Your task to perform on an android device: Open internet settings Image 0: 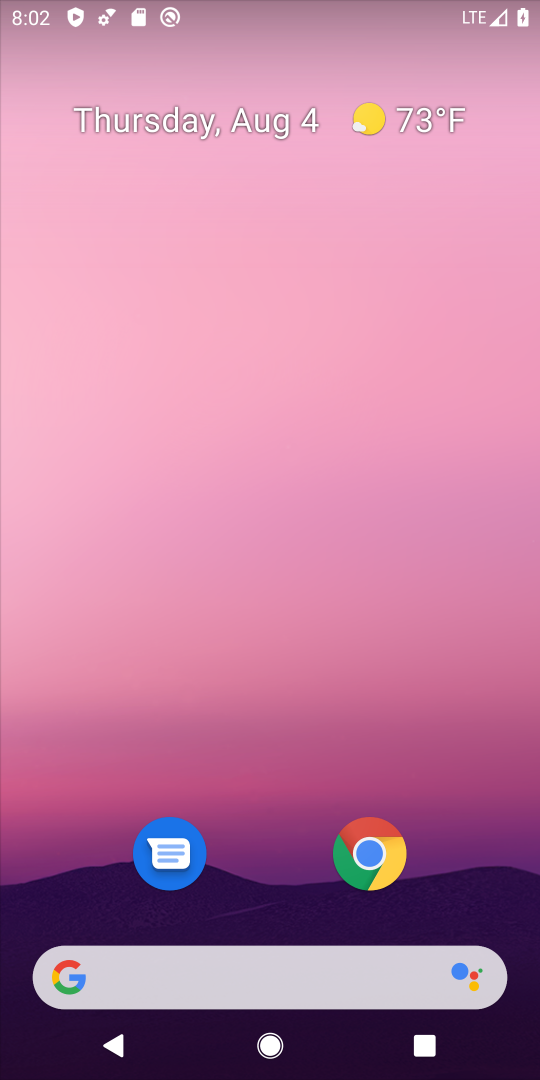
Step 0: drag from (343, 800) to (412, 262)
Your task to perform on an android device: Open internet settings Image 1: 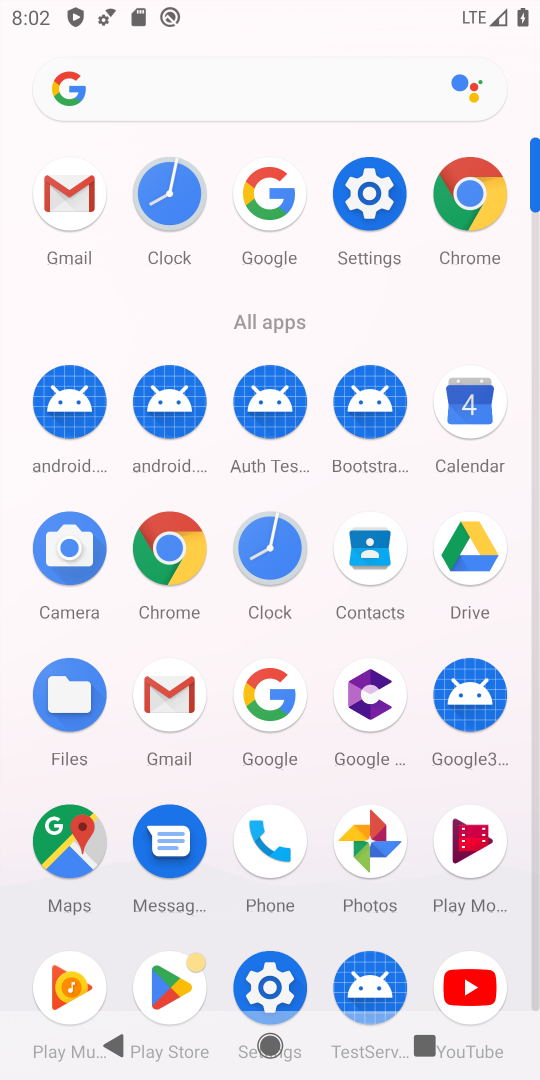
Step 1: click (371, 205)
Your task to perform on an android device: Open internet settings Image 2: 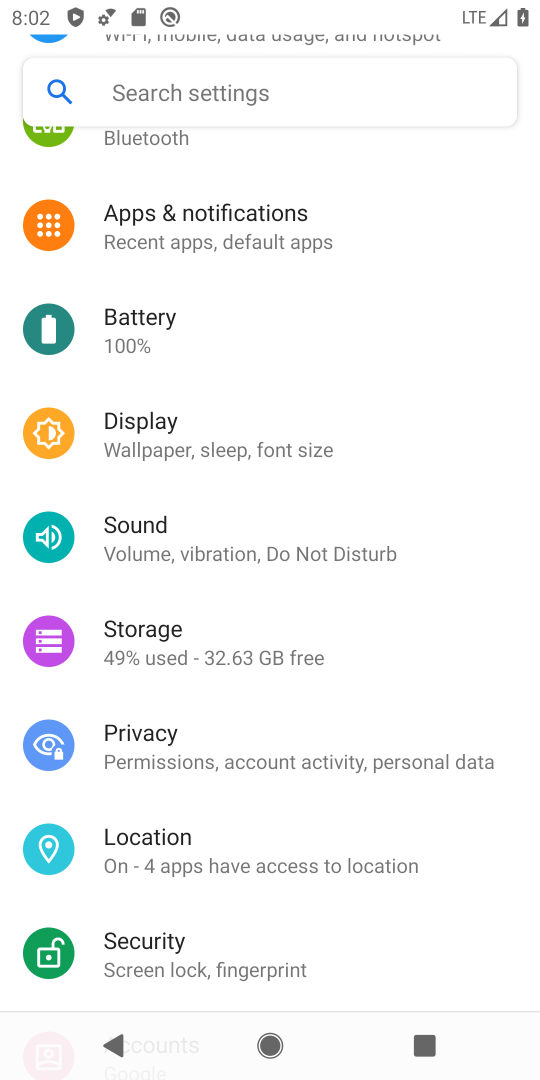
Step 2: drag from (240, 203) to (387, 588)
Your task to perform on an android device: Open internet settings Image 3: 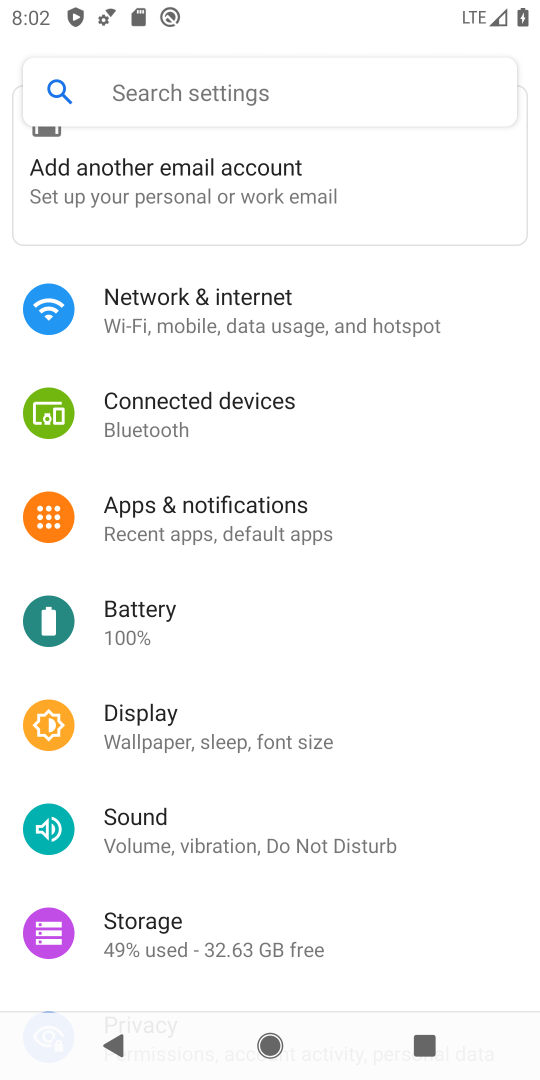
Step 3: click (232, 278)
Your task to perform on an android device: Open internet settings Image 4: 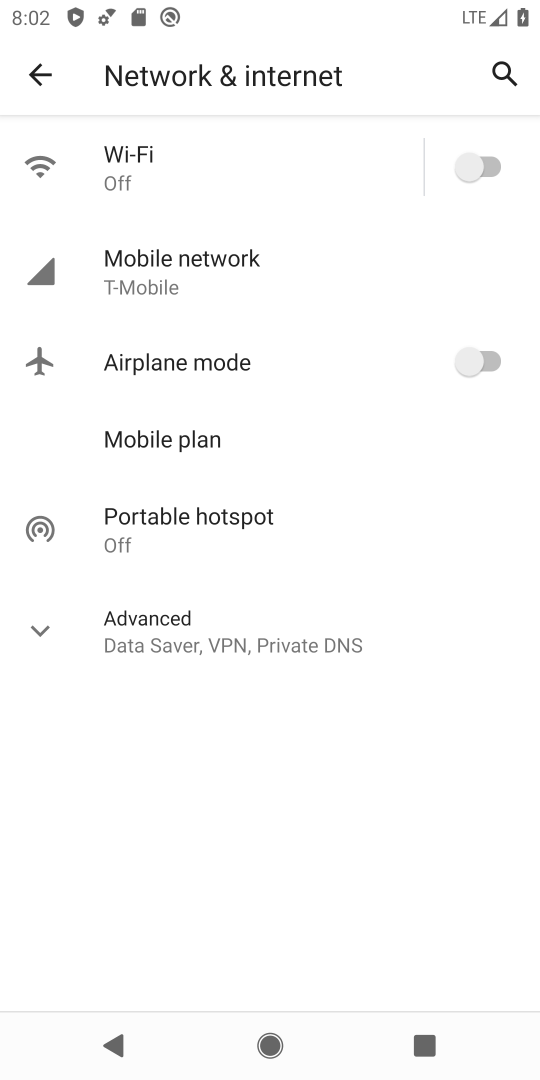
Step 4: click (226, 275)
Your task to perform on an android device: Open internet settings Image 5: 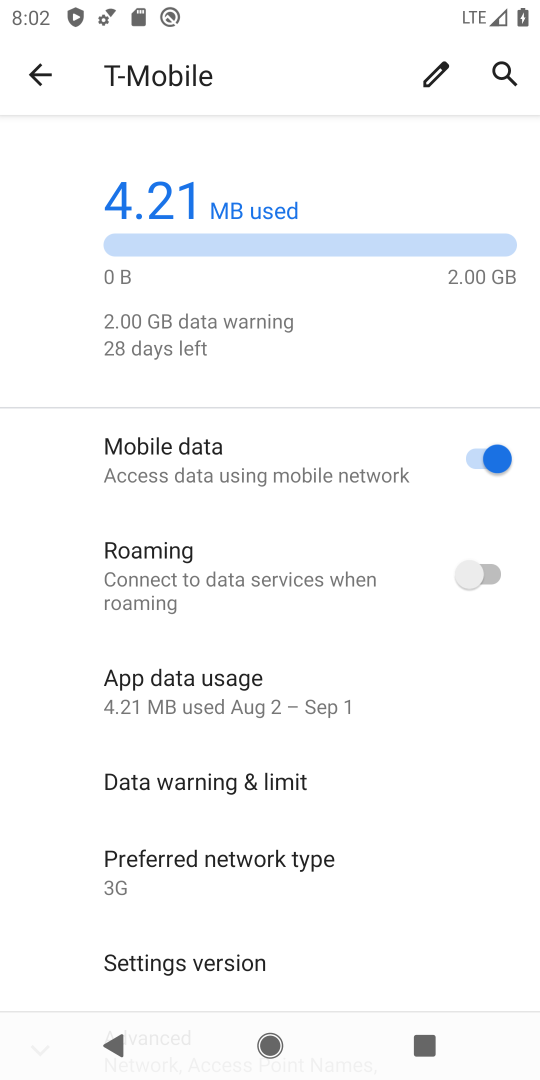
Step 5: task complete